Your task to perform on an android device: Do I have any events today? Image 0: 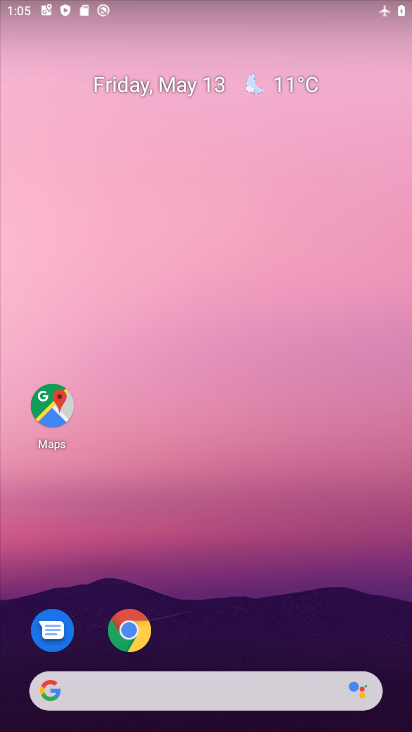
Step 0: drag from (333, 654) to (382, 71)
Your task to perform on an android device: Do I have any events today? Image 1: 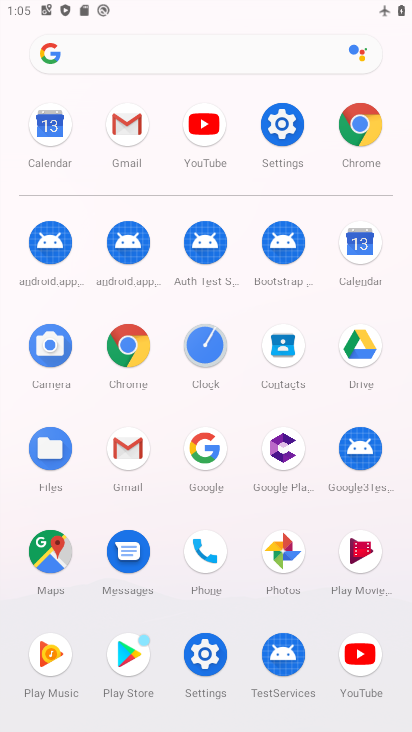
Step 1: click (52, 126)
Your task to perform on an android device: Do I have any events today? Image 2: 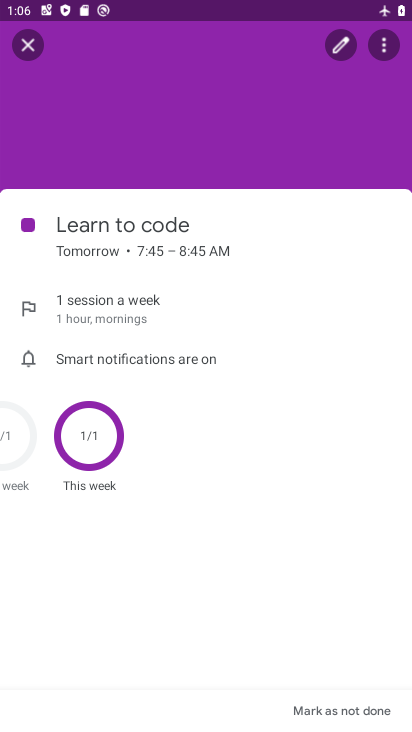
Step 2: click (33, 52)
Your task to perform on an android device: Do I have any events today? Image 3: 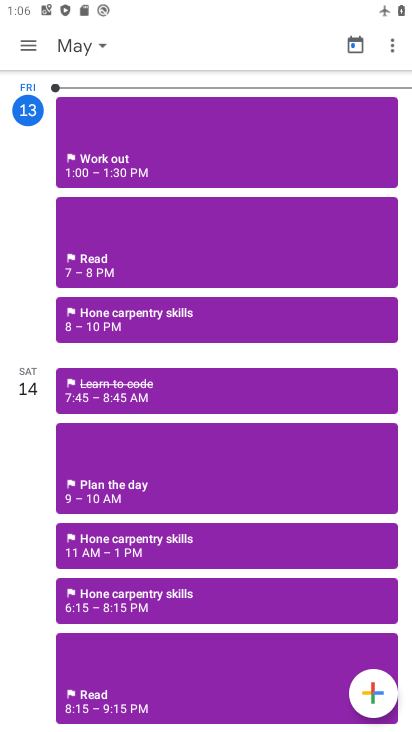
Step 3: click (159, 153)
Your task to perform on an android device: Do I have any events today? Image 4: 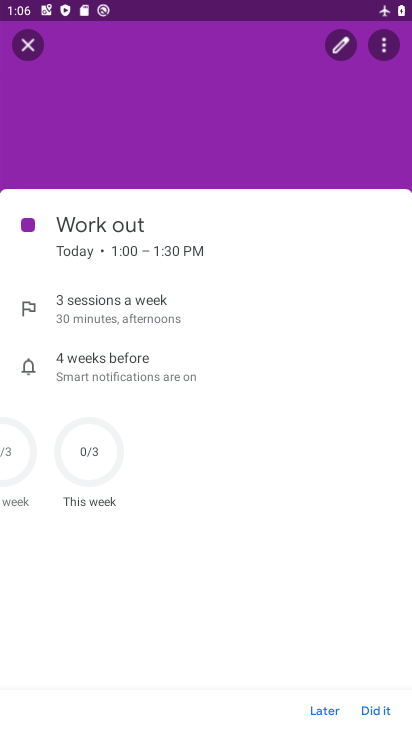
Step 4: task complete